Your task to perform on an android device: toggle pop-ups in chrome Image 0: 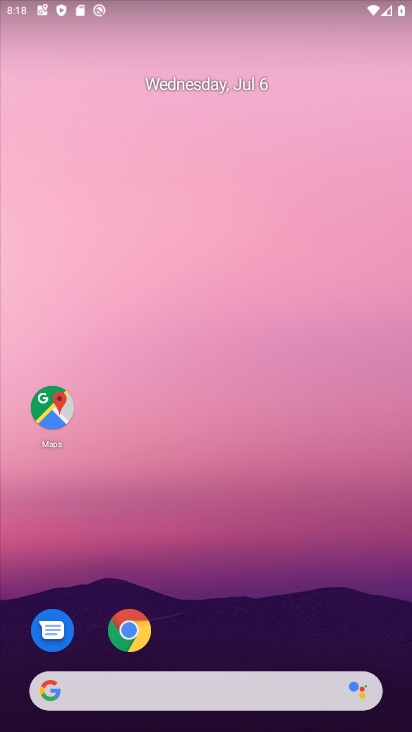
Step 0: click (119, 622)
Your task to perform on an android device: toggle pop-ups in chrome Image 1: 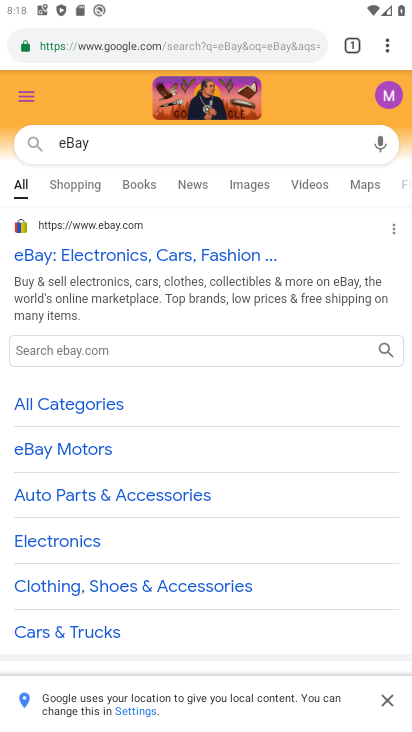
Step 1: click (384, 37)
Your task to perform on an android device: toggle pop-ups in chrome Image 2: 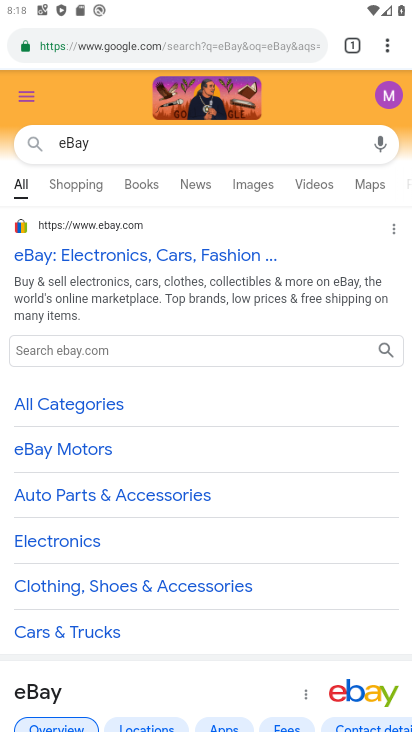
Step 2: click (391, 47)
Your task to perform on an android device: toggle pop-ups in chrome Image 3: 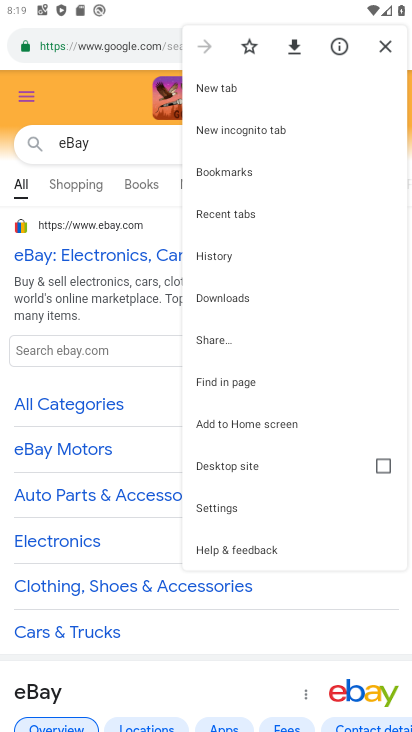
Step 3: click (222, 505)
Your task to perform on an android device: toggle pop-ups in chrome Image 4: 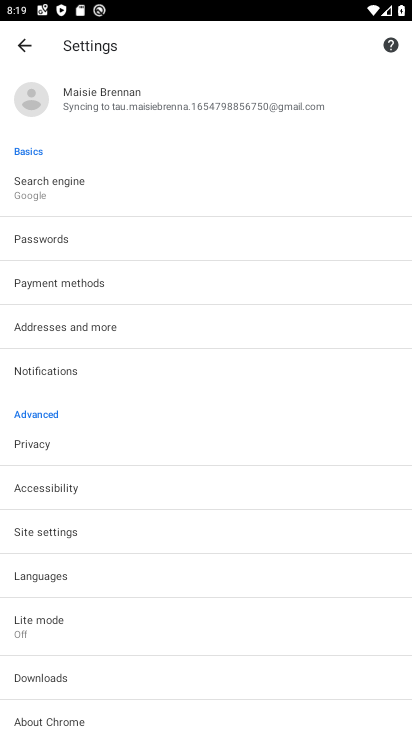
Step 4: click (34, 529)
Your task to perform on an android device: toggle pop-ups in chrome Image 5: 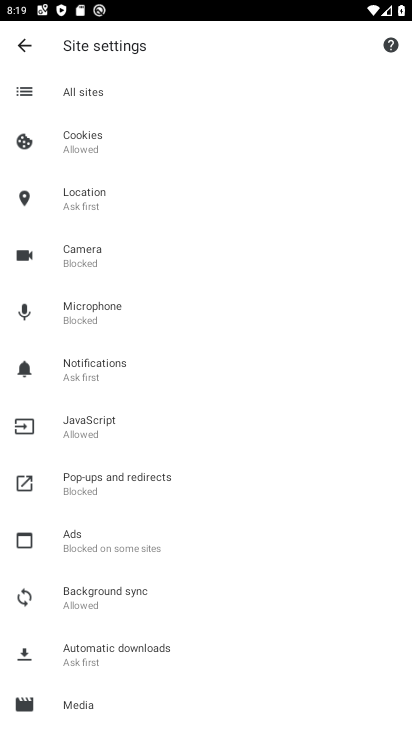
Step 5: click (79, 479)
Your task to perform on an android device: toggle pop-ups in chrome Image 6: 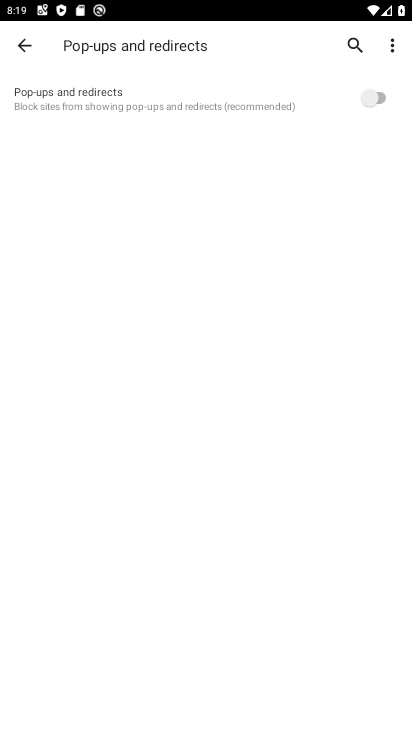
Step 6: click (381, 94)
Your task to perform on an android device: toggle pop-ups in chrome Image 7: 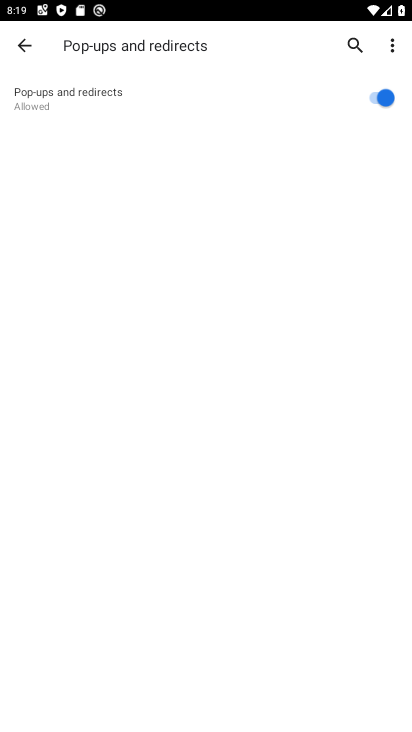
Step 7: task complete